Your task to perform on an android device: Open notification settings Image 0: 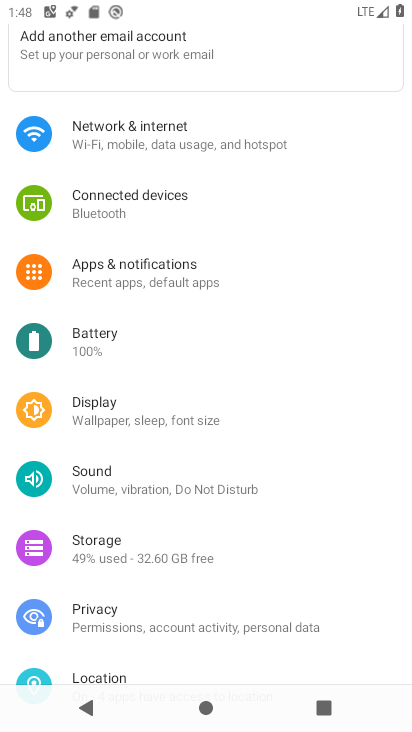
Step 0: press home button
Your task to perform on an android device: Open notification settings Image 1: 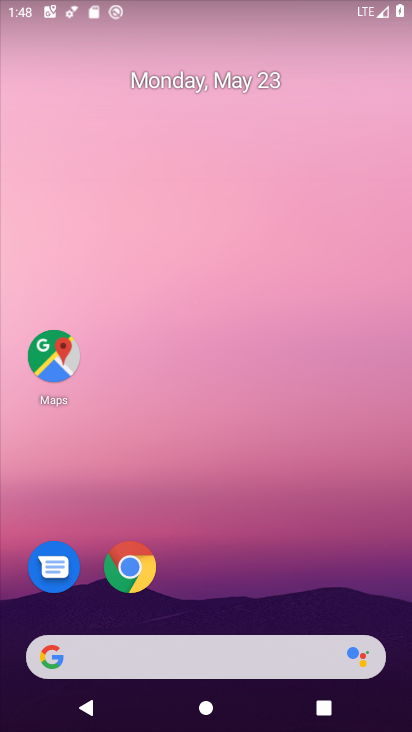
Step 1: drag from (252, 606) to (245, 284)
Your task to perform on an android device: Open notification settings Image 2: 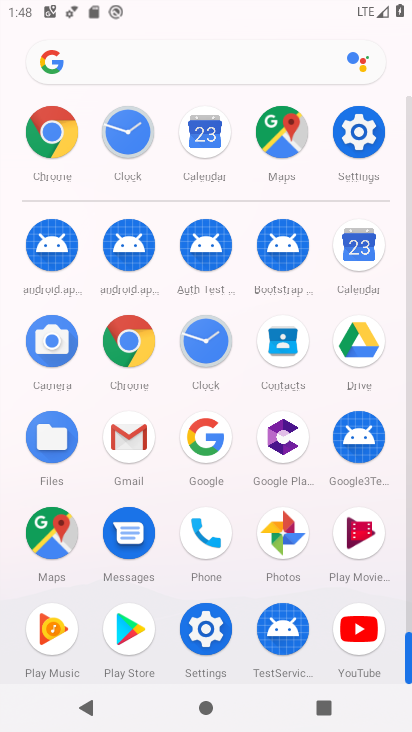
Step 2: click (210, 633)
Your task to perform on an android device: Open notification settings Image 3: 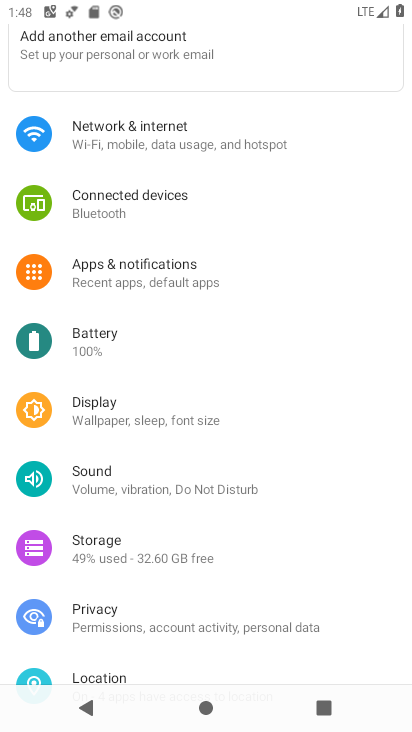
Step 3: click (196, 283)
Your task to perform on an android device: Open notification settings Image 4: 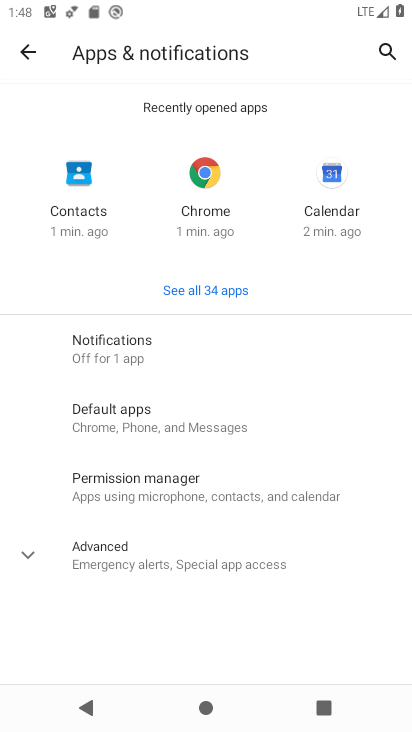
Step 4: click (153, 358)
Your task to perform on an android device: Open notification settings Image 5: 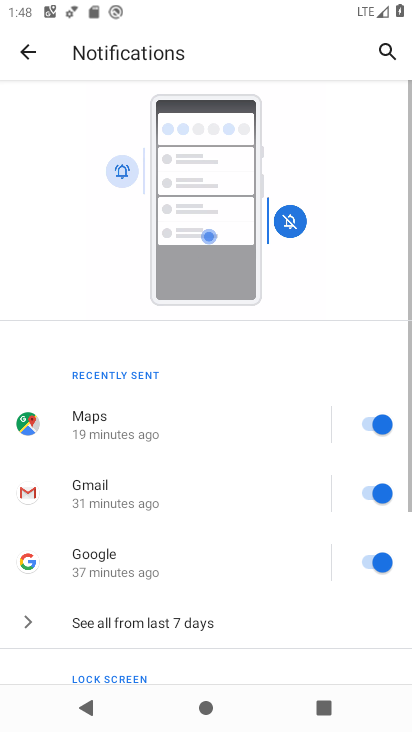
Step 5: drag from (189, 555) to (179, 344)
Your task to perform on an android device: Open notification settings Image 6: 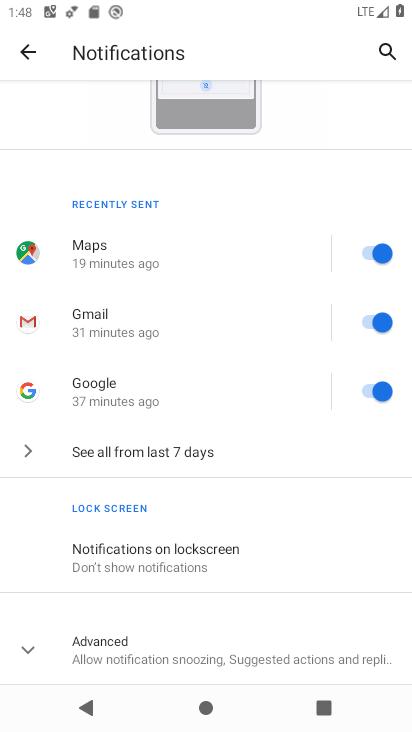
Step 6: click (170, 558)
Your task to perform on an android device: Open notification settings Image 7: 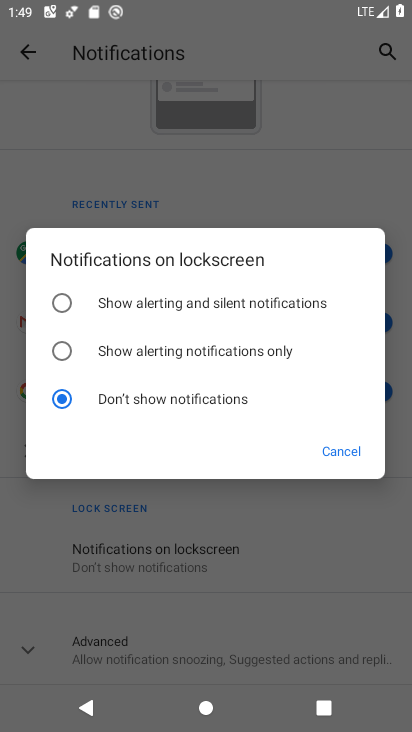
Step 7: click (184, 548)
Your task to perform on an android device: Open notification settings Image 8: 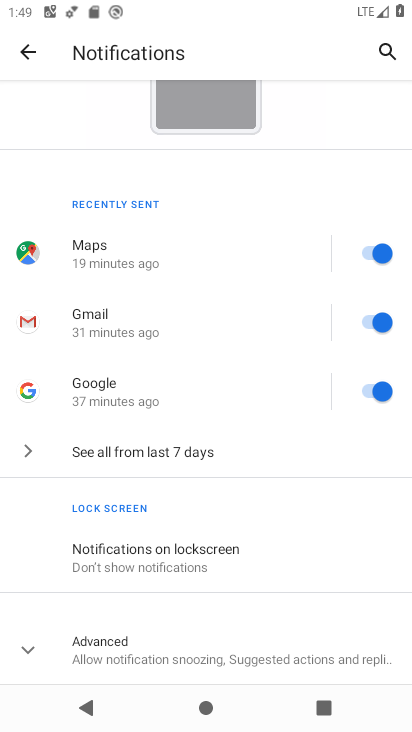
Step 8: task complete